Your task to perform on an android device: change the clock display to analog Image 0: 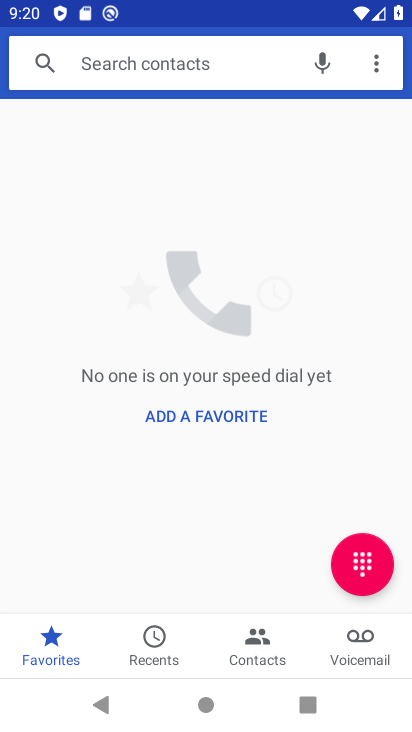
Step 0: press home button
Your task to perform on an android device: change the clock display to analog Image 1: 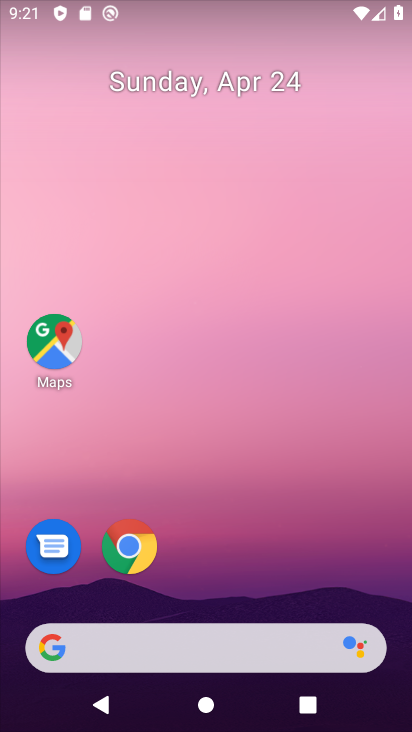
Step 1: drag from (245, 572) to (316, 140)
Your task to perform on an android device: change the clock display to analog Image 2: 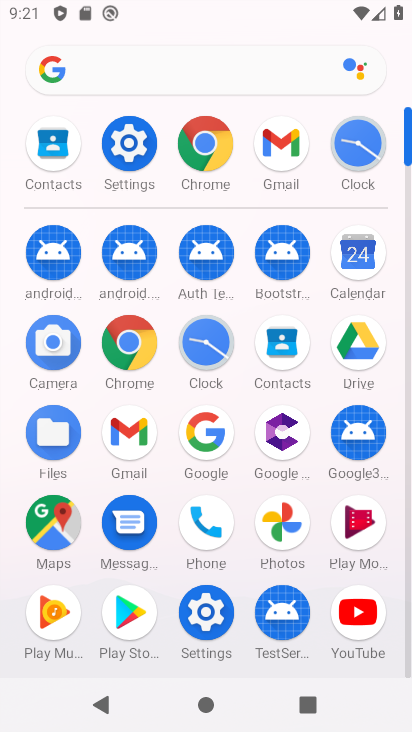
Step 2: click (350, 164)
Your task to perform on an android device: change the clock display to analog Image 3: 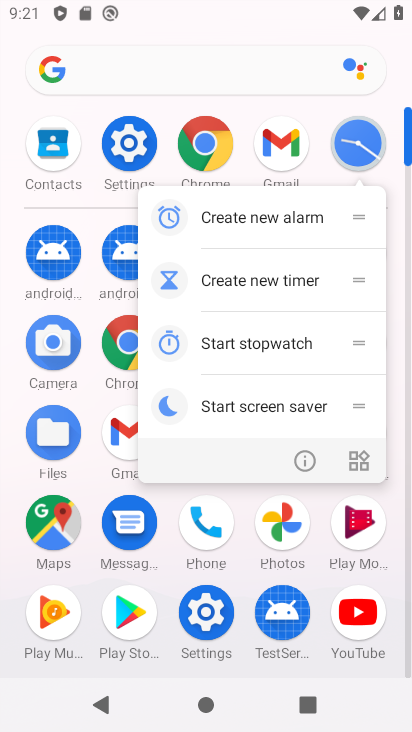
Step 3: click (369, 150)
Your task to perform on an android device: change the clock display to analog Image 4: 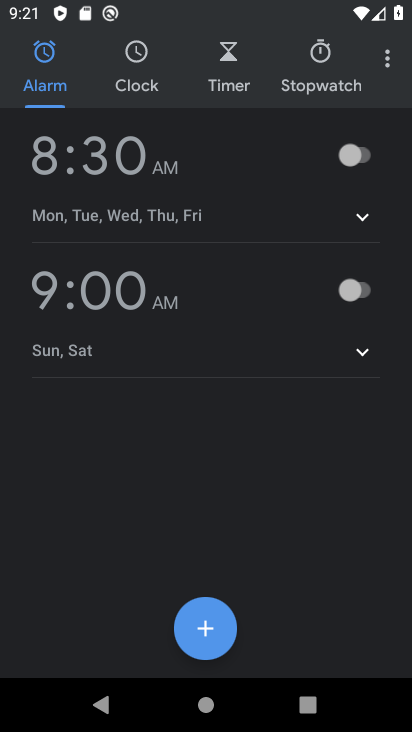
Step 4: click (398, 61)
Your task to perform on an android device: change the clock display to analog Image 5: 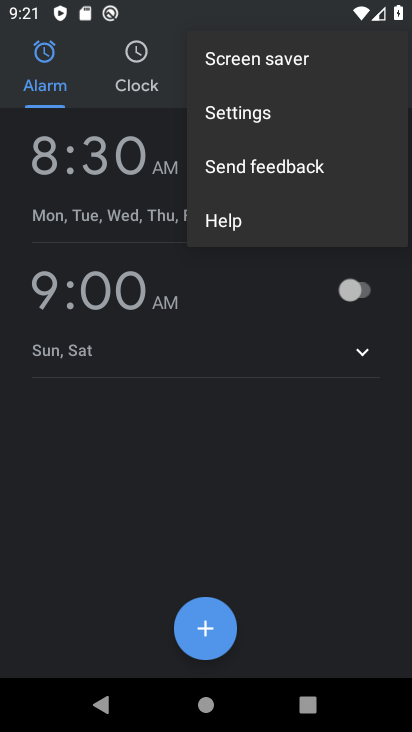
Step 5: click (303, 133)
Your task to perform on an android device: change the clock display to analog Image 6: 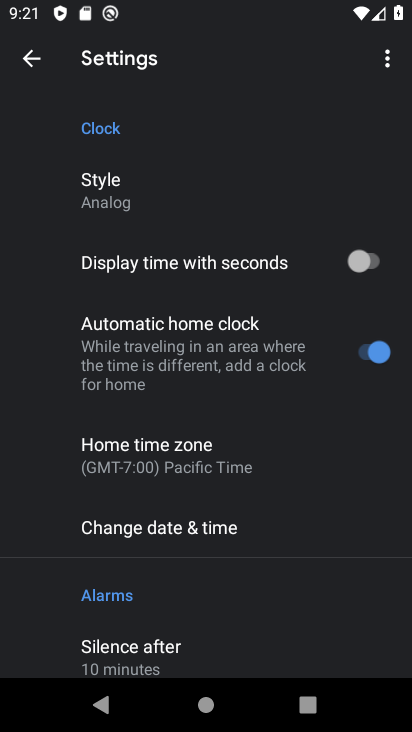
Step 6: task complete